Your task to perform on an android device: delete a single message in the gmail app Image 0: 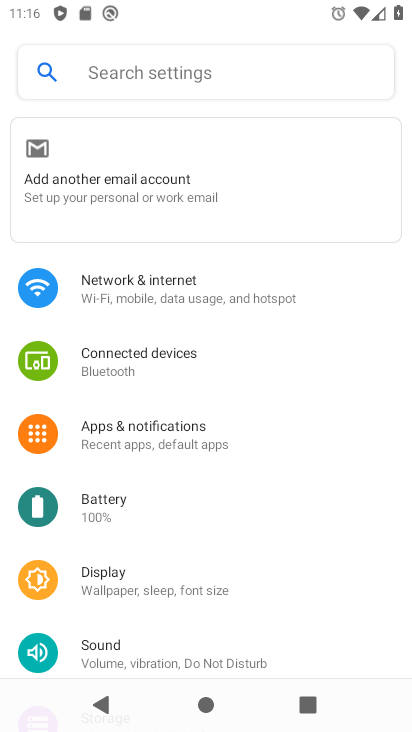
Step 0: press back button
Your task to perform on an android device: delete a single message in the gmail app Image 1: 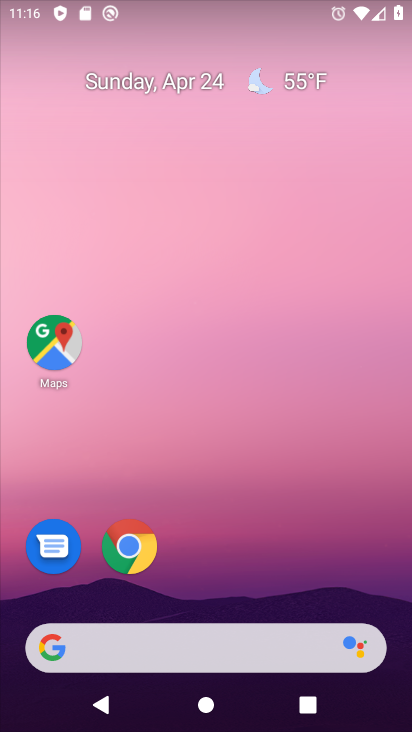
Step 1: drag from (236, 568) to (224, 9)
Your task to perform on an android device: delete a single message in the gmail app Image 2: 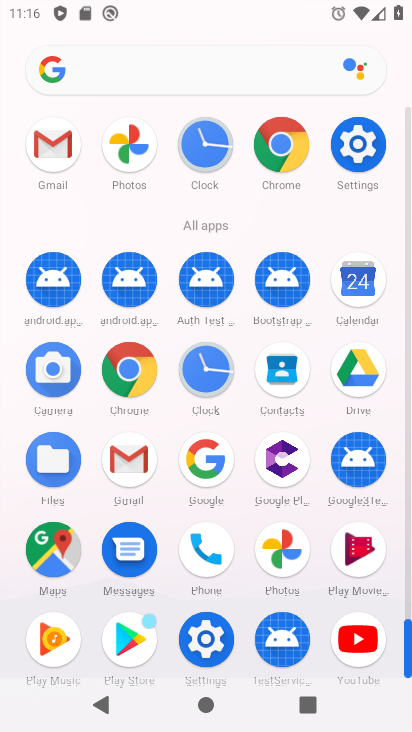
Step 2: click (50, 143)
Your task to perform on an android device: delete a single message in the gmail app Image 3: 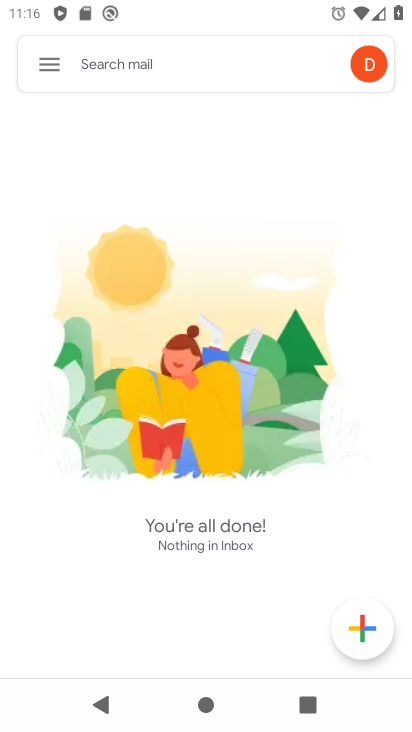
Step 3: click (53, 62)
Your task to perform on an android device: delete a single message in the gmail app Image 4: 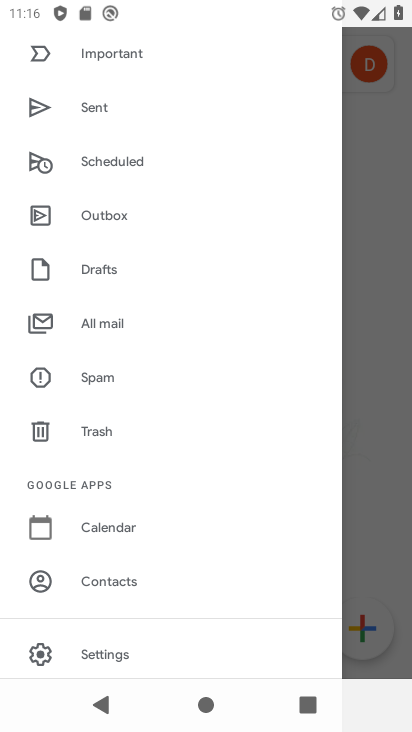
Step 4: drag from (148, 311) to (149, 432)
Your task to perform on an android device: delete a single message in the gmail app Image 5: 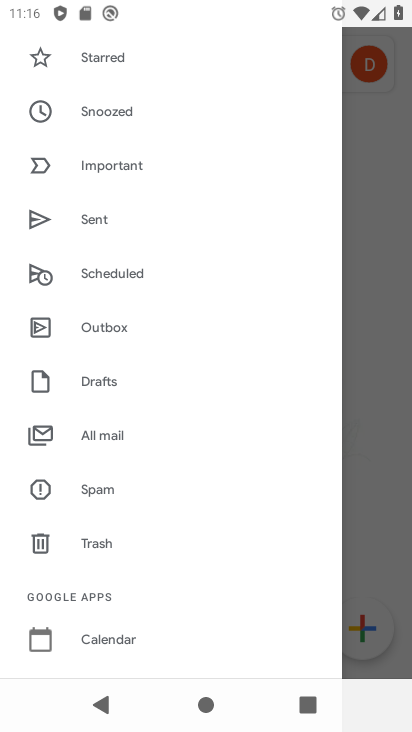
Step 5: drag from (142, 488) to (203, 277)
Your task to perform on an android device: delete a single message in the gmail app Image 6: 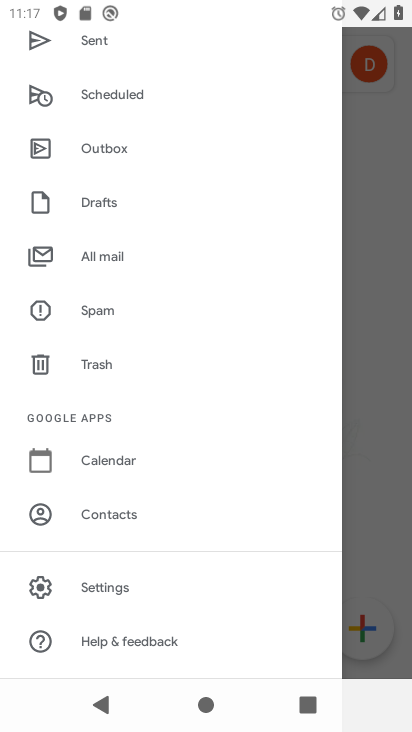
Step 6: drag from (194, 331) to (203, 498)
Your task to perform on an android device: delete a single message in the gmail app Image 7: 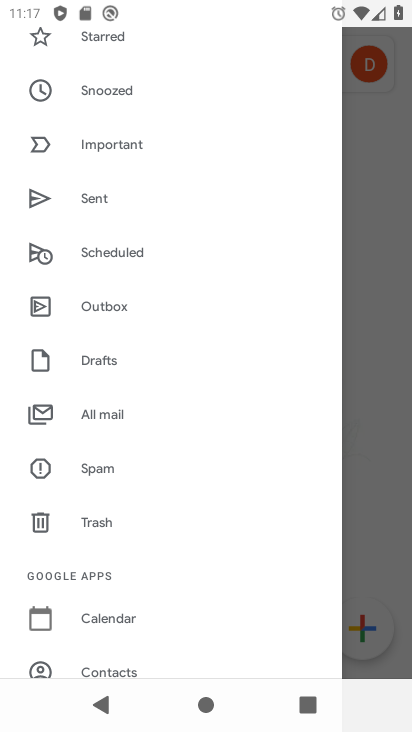
Step 7: drag from (171, 247) to (223, 448)
Your task to perform on an android device: delete a single message in the gmail app Image 8: 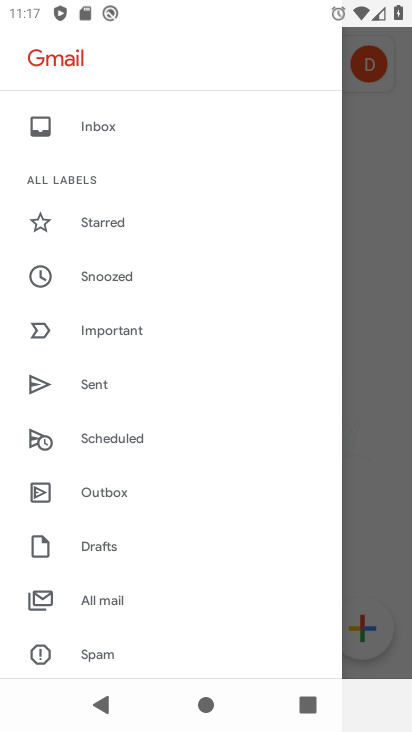
Step 8: drag from (187, 252) to (216, 337)
Your task to perform on an android device: delete a single message in the gmail app Image 9: 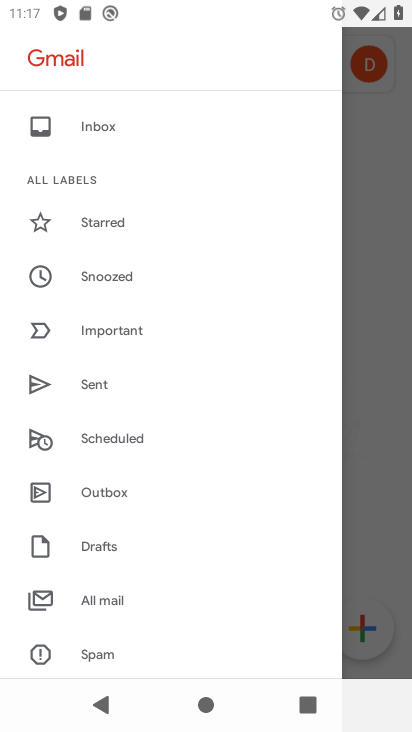
Step 9: click (103, 132)
Your task to perform on an android device: delete a single message in the gmail app Image 10: 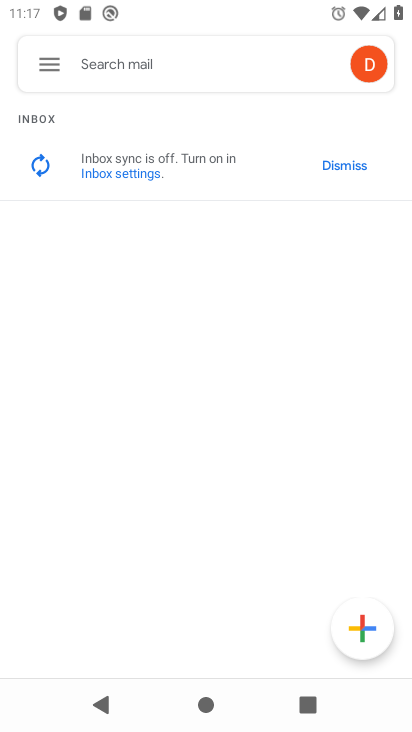
Step 10: click (43, 60)
Your task to perform on an android device: delete a single message in the gmail app Image 11: 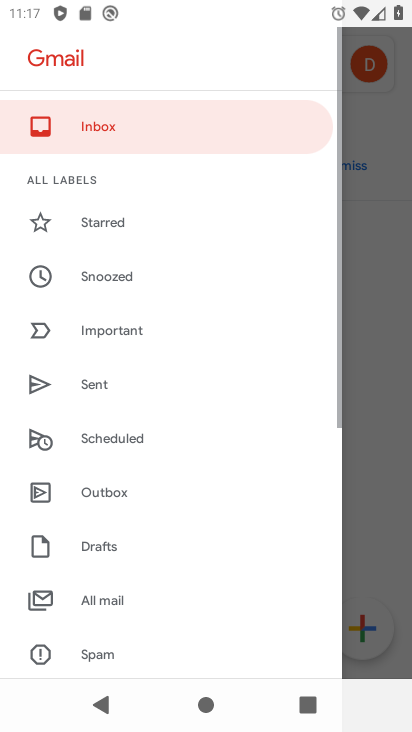
Step 11: drag from (127, 435) to (142, 383)
Your task to perform on an android device: delete a single message in the gmail app Image 12: 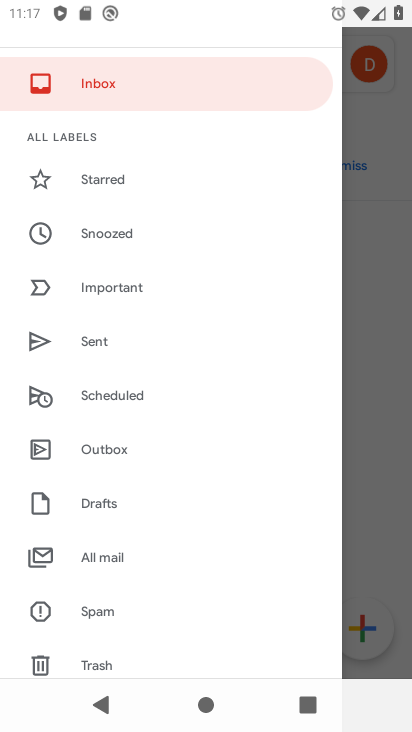
Step 12: click (130, 557)
Your task to perform on an android device: delete a single message in the gmail app Image 13: 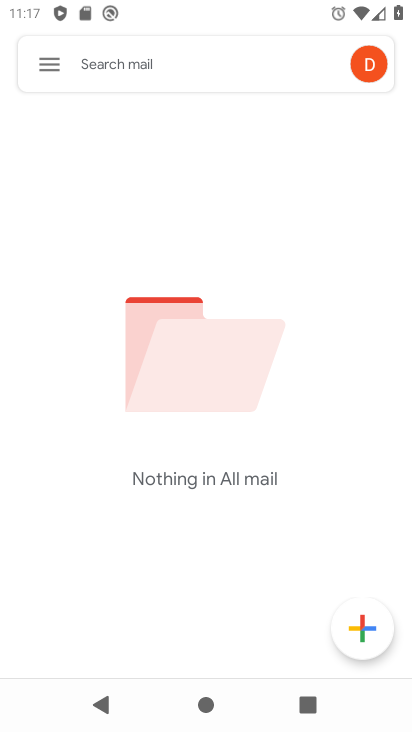
Step 13: task complete